Your task to perform on an android device: Go to settings Image 0: 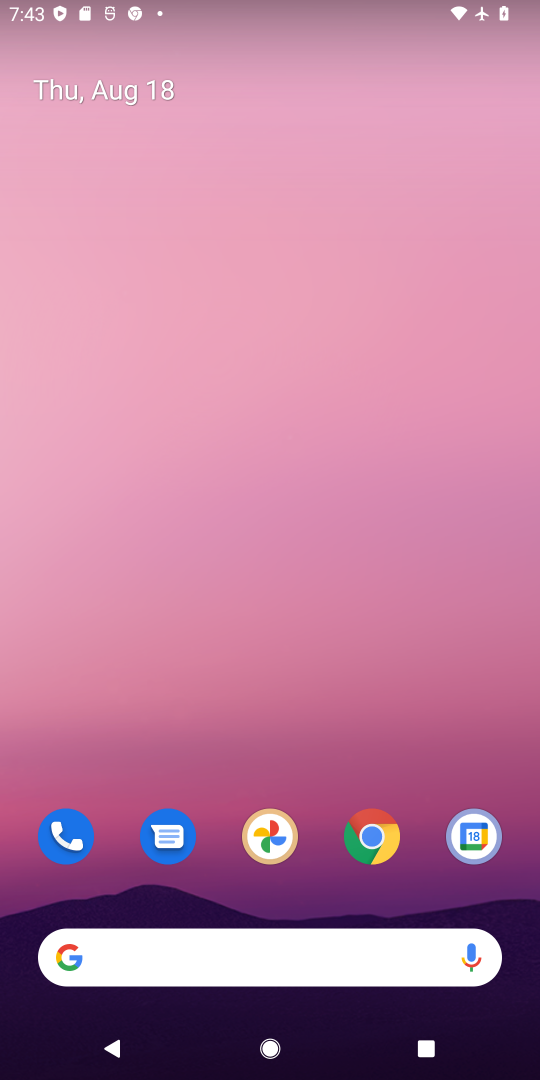
Step 0: drag from (325, 719) to (232, 152)
Your task to perform on an android device: Go to settings Image 1: 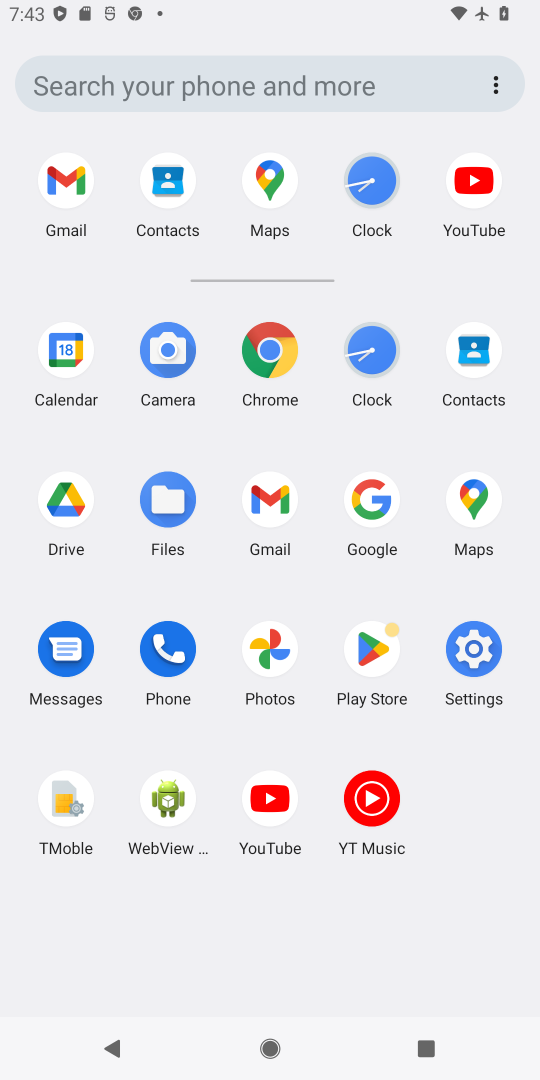
Step 1: click (494, 643)
Your task to perform on an android device: Go to settings Image 2: 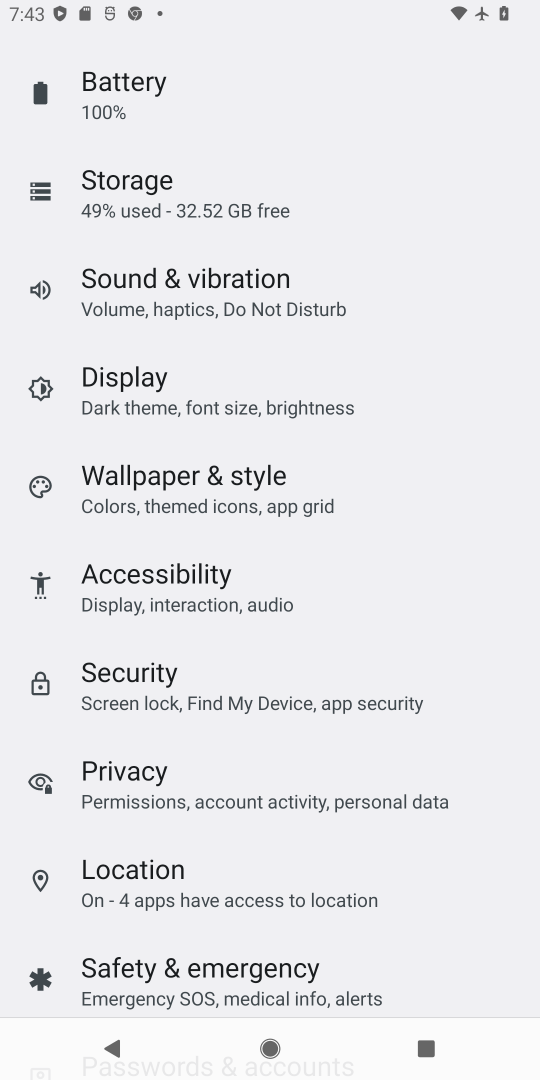
Step 2: task complete